Your task to perform on an android device: Open ESPN.com Image 0: 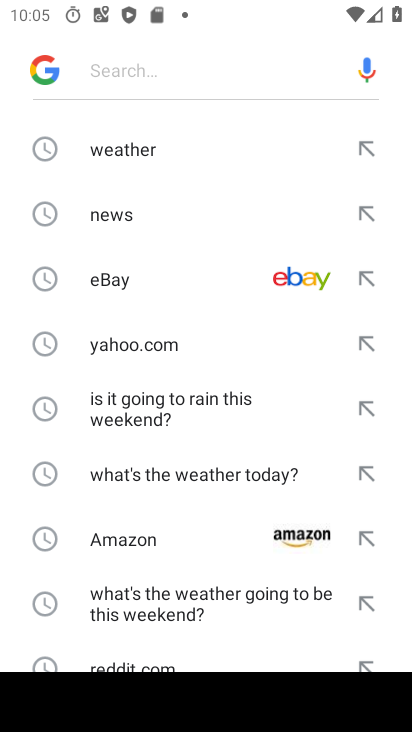
Step 0: press home button
Your task to perform on an android device: Open ESPN.com Image 1: 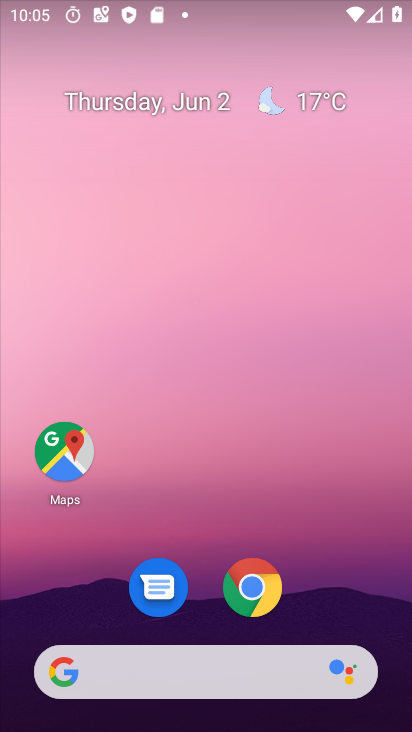
Step 1: click (248, 581)
Your task to perform on an android device: Open ESPN.com Image 2: 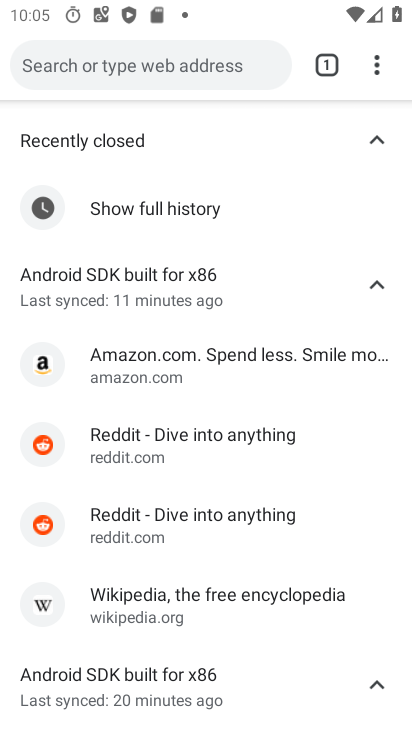
Step 2: click (328, 62)
Your task to perform on an android device: Open ESPN.com Image 3: 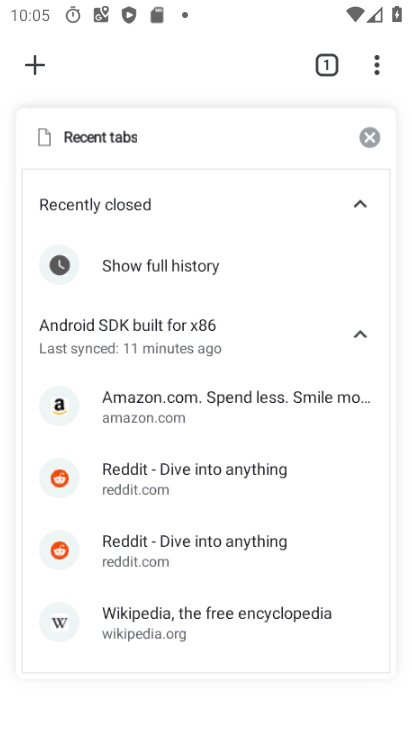
Step 3: click (369, 139)
Your task to perform on an android device: Open ESPN.com Image 4: 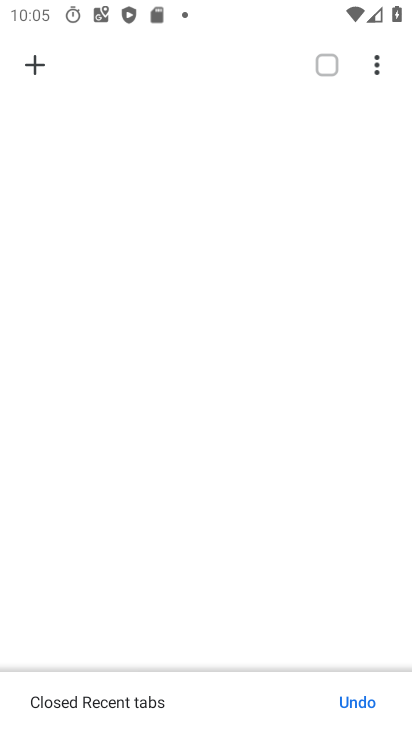
Step 4: click (41, 64)
Your task to perform on an android device: Open ESPN.com Image 5: 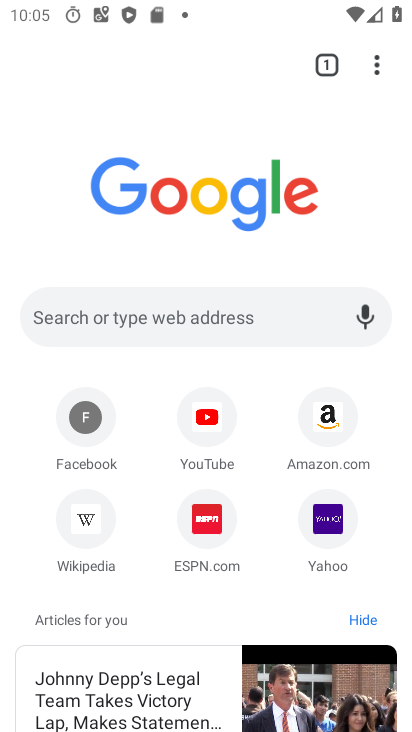
Step 5: click (203, 515)
Your task to perform on an android device: Open ESPN.com Image 6: 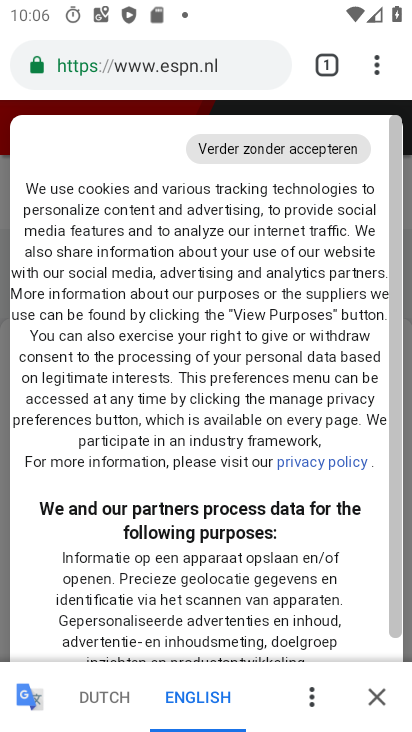
Step 6: click (374, 696)
Your task to perform on an android device: Open ESPN.com Image 7: 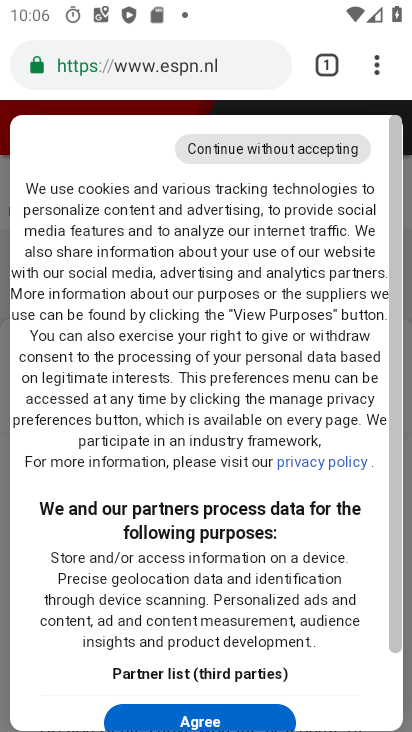
Step 7: drag from (253, 612) to (274, 382)
Your task to perform on an android device: Open ESPN.com Image 8: 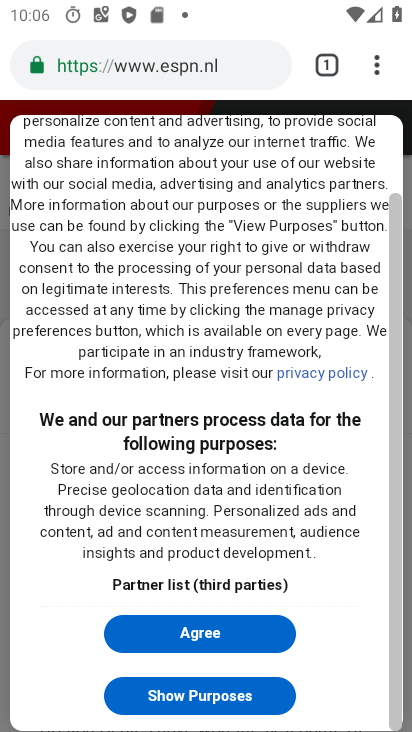
Step 8: click (201, 629)
Your task to perform on an android device: Open ESPN.com Image 9: 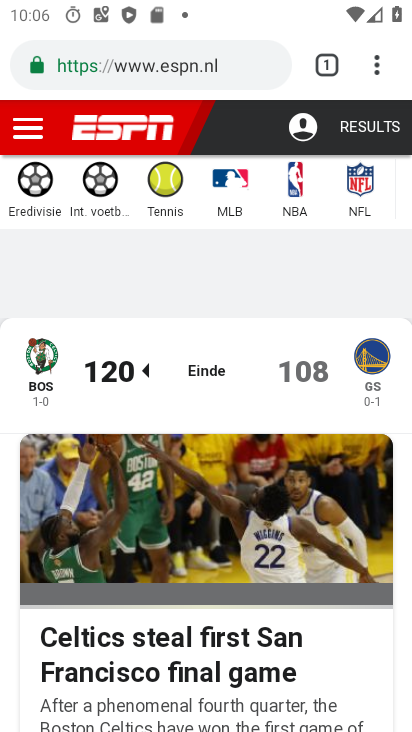
Step 9: task complete